Your task to perform on an android device: Go to eBay Image 0: 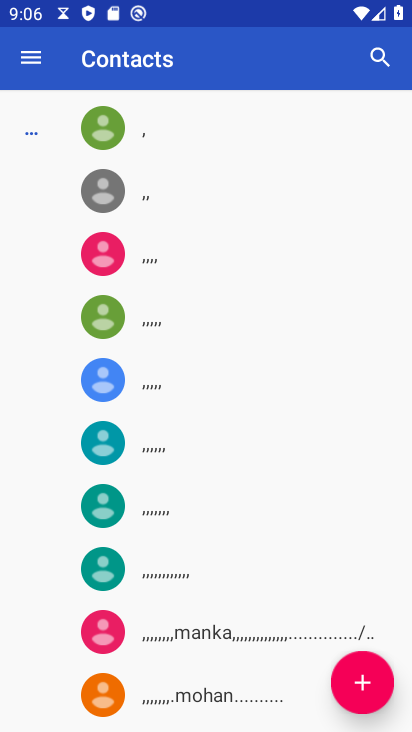
Step 0: press home button
Your task to perform on an android device: Go to eBay Image 1: 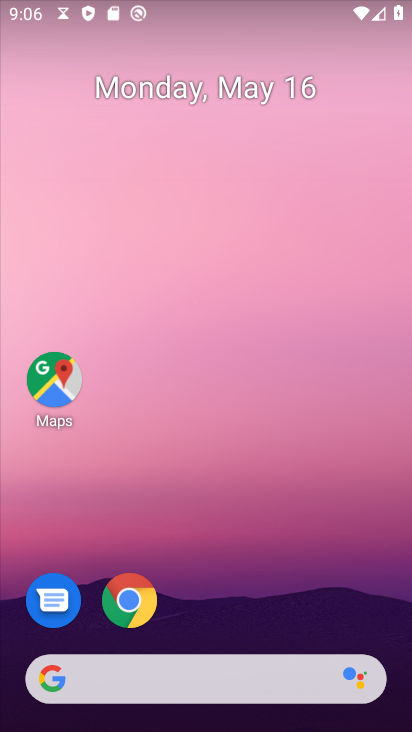
Step 1: drag from (210, 599) to (183, 2)
Your task to perform on an android device: Go to eBay Image 2: 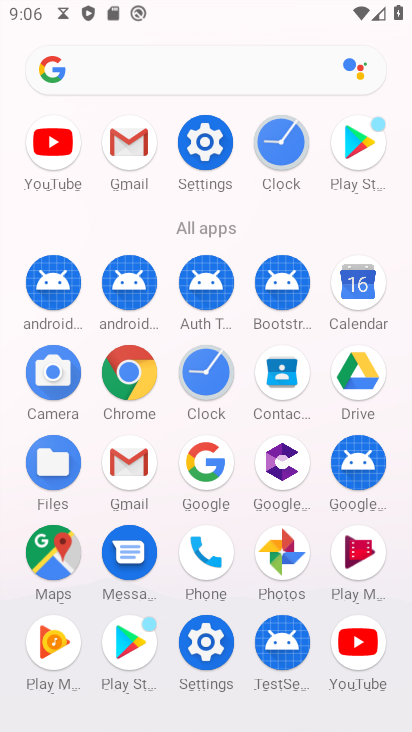
Step 2: click (121, 410)
Your task to perform on an android device: Go to eBay Image 3: 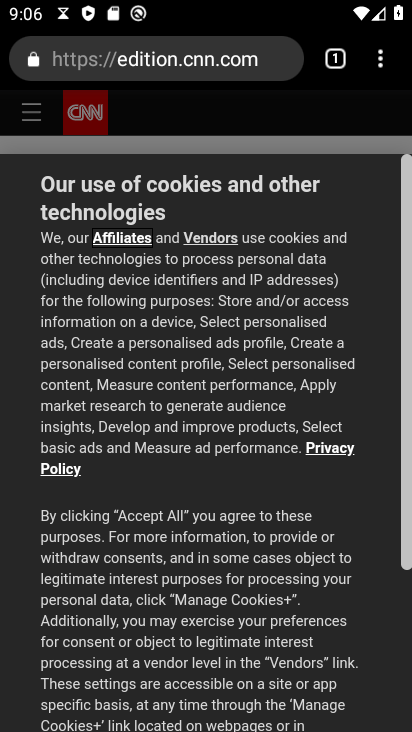
Step 3: click (166, 60)
Your task to perform on an android device: Go to eBay Image 4: 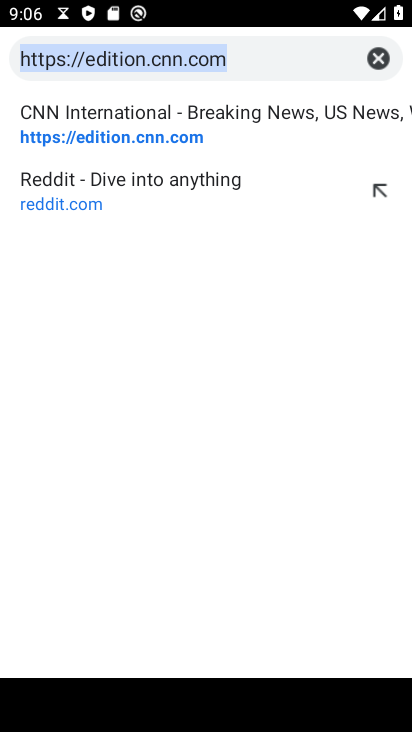
Step 4: type "www.ebay.com"
Your task to perform on an android device: Go to eBay Image 5: 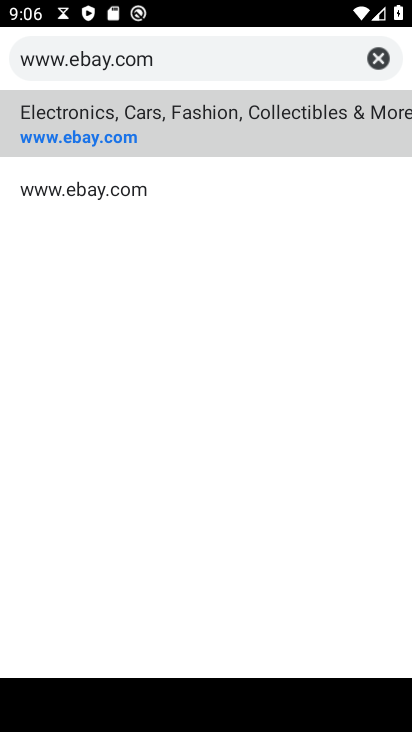
Step 5: click (40, 128)
Your task to perform on an android device: Go to eBay Image 6: 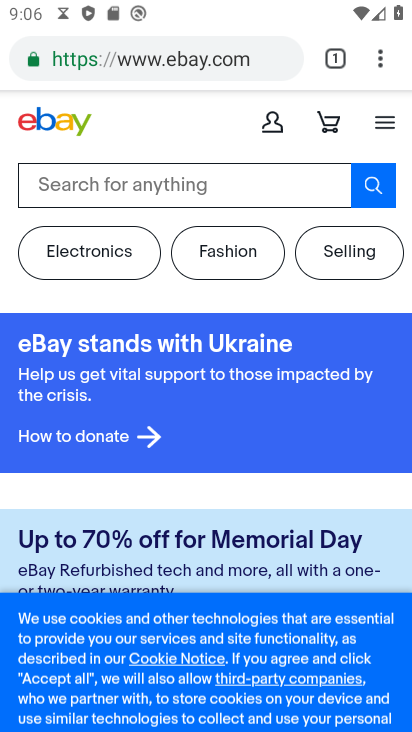
Step 6: task complete